Your task to perform on an android device: Open accessibility settings Image 0: 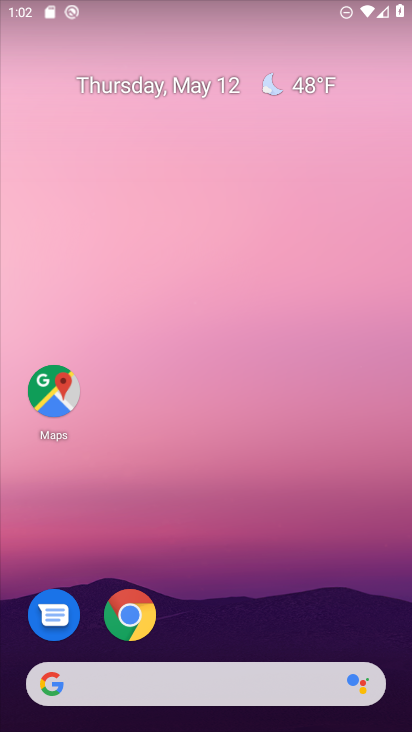
Step 0: drag from (268, 660) to (302, 91)
Your task to perform on an android device: Open accessibility settings Image 1: 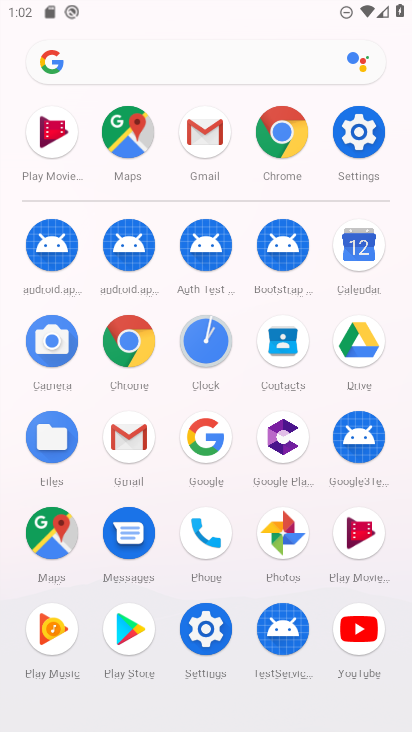
Step 1: click (359, 139)
Your task to perform on an android device: Open accessibility settings Image 2: 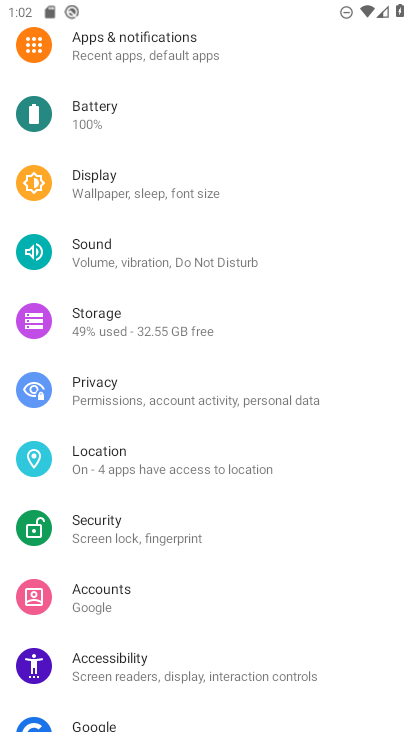
Step 2: click (203, 674)
Your task to perform on an android device: Open accessibility settings Image 3: 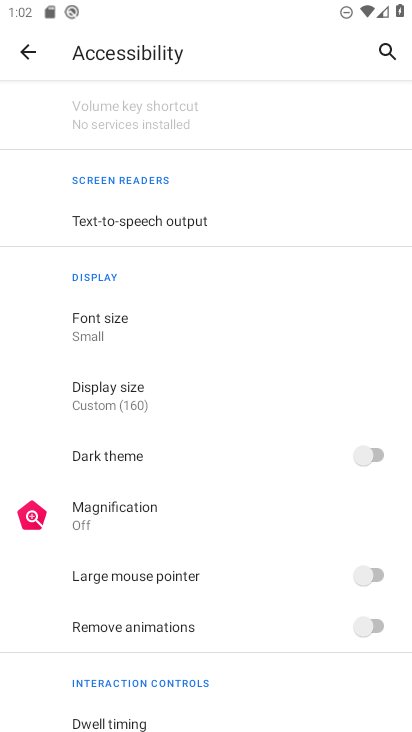
Step 3: task complete